Your task to perform on an android device: turn notification dots on Image 0: 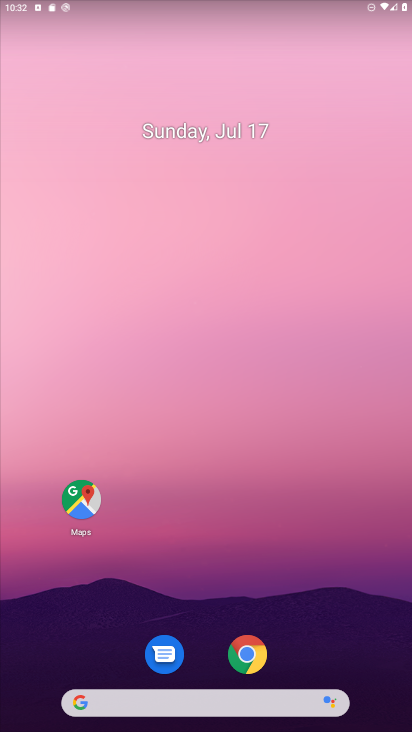
Step 0: drag from (198, 632) to (207, 20)
Your task to perform on an android device: turn notification dots on Image 1: 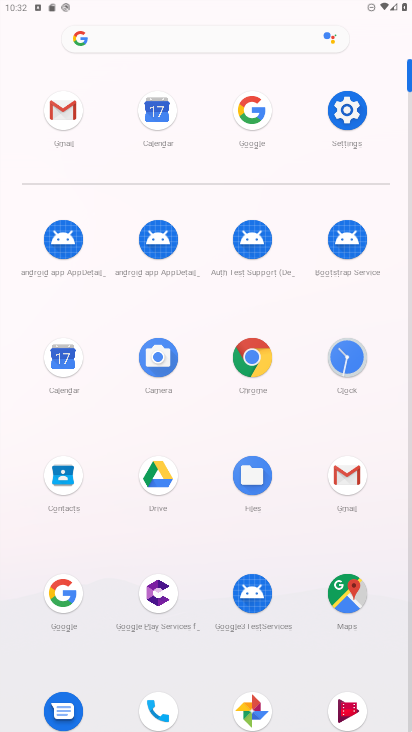
Step 1: click (335, 108)
Your task to perform on an android device: turn notification dots on Image 2: 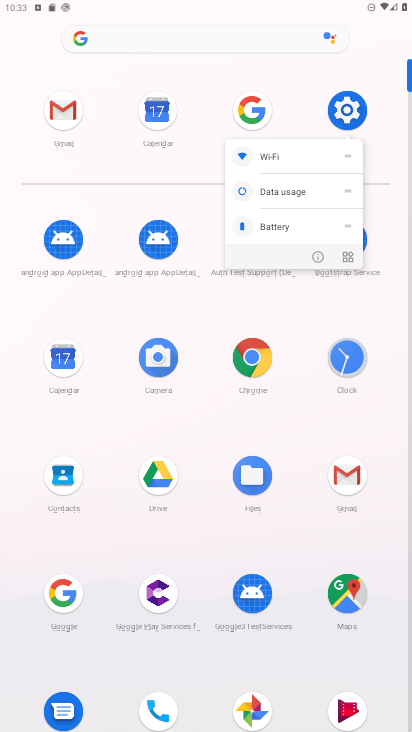
Step 2: click (339, 118)
Your task to perform on an android device: turn notification dots on Image 3: 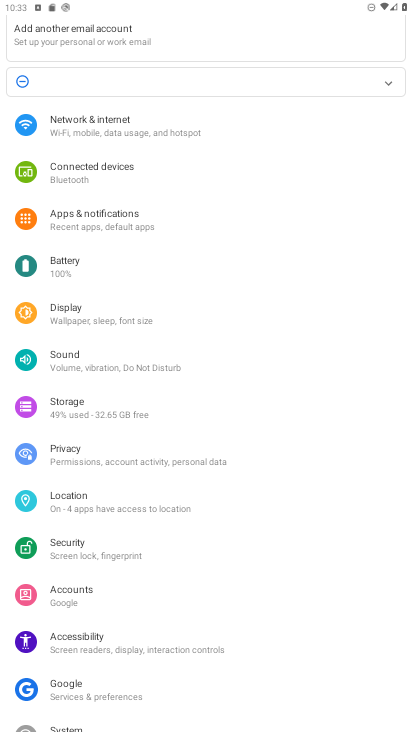
Step 3: click (76, 229)
Your task to perform on an android device: turn notification dots on Image 4: 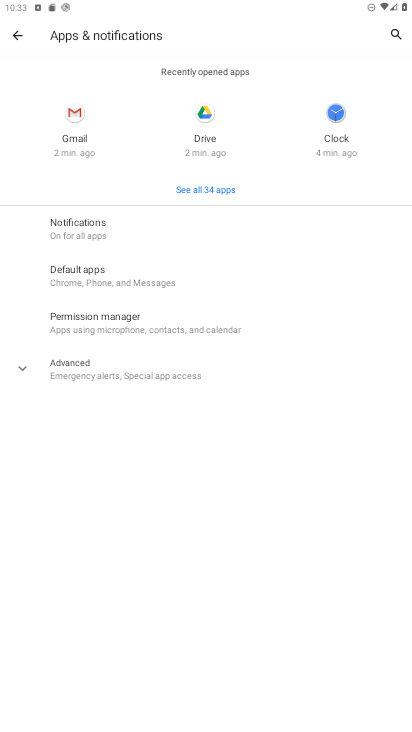
Step 4: click (99, 235)
Your task to perform on an android device: turn notification dots on Image 5: 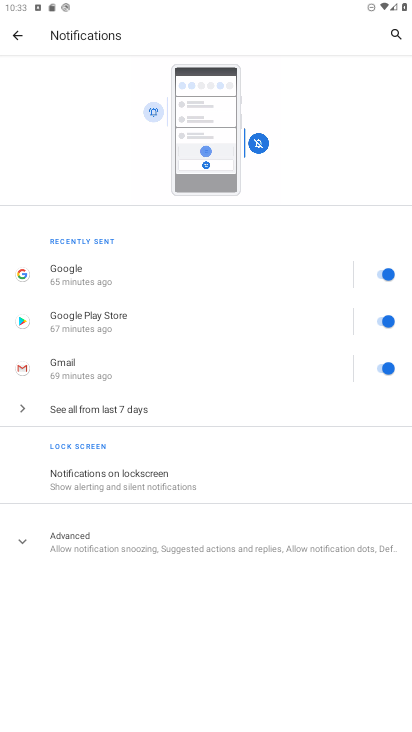
Step 5: click (191, 538)
Your task to perform on an android device: turn notification dots on Image 6: 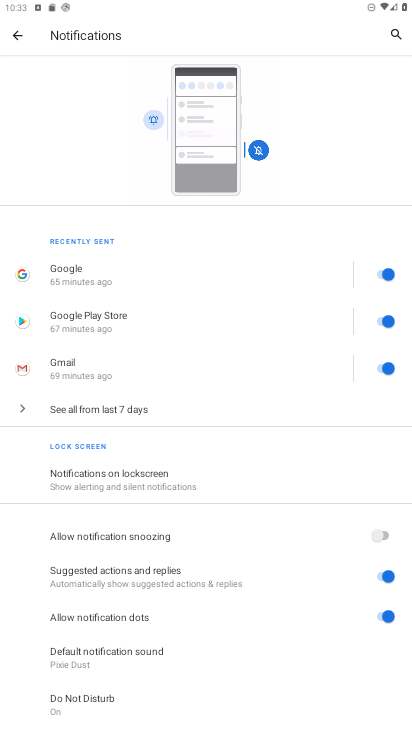
Step 6: task complete